Your task to perform on an android device: Open Google Chrome and open the bookmarks view Image 0: 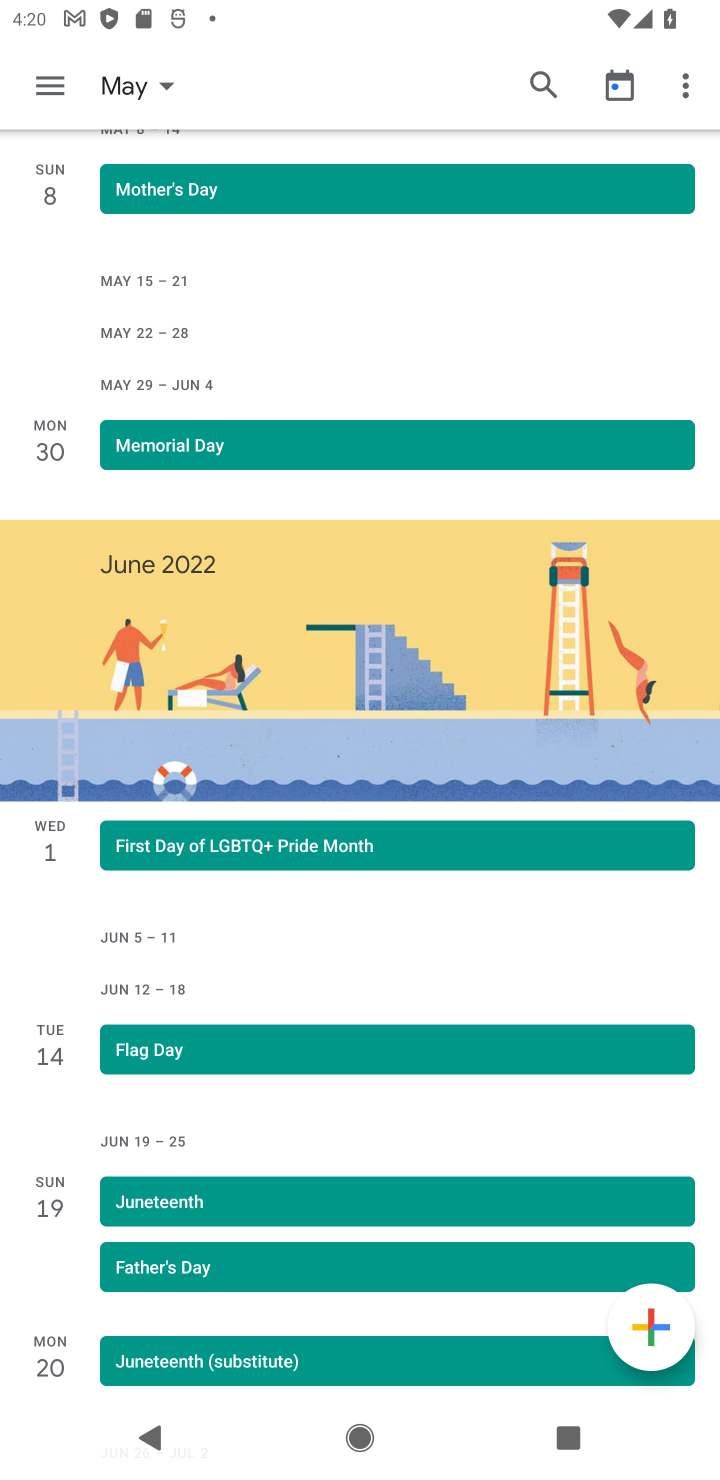
Step 0: press home button
Your task to perform on an android device: Open Google Chrome and open the bookmarks view Image 1: 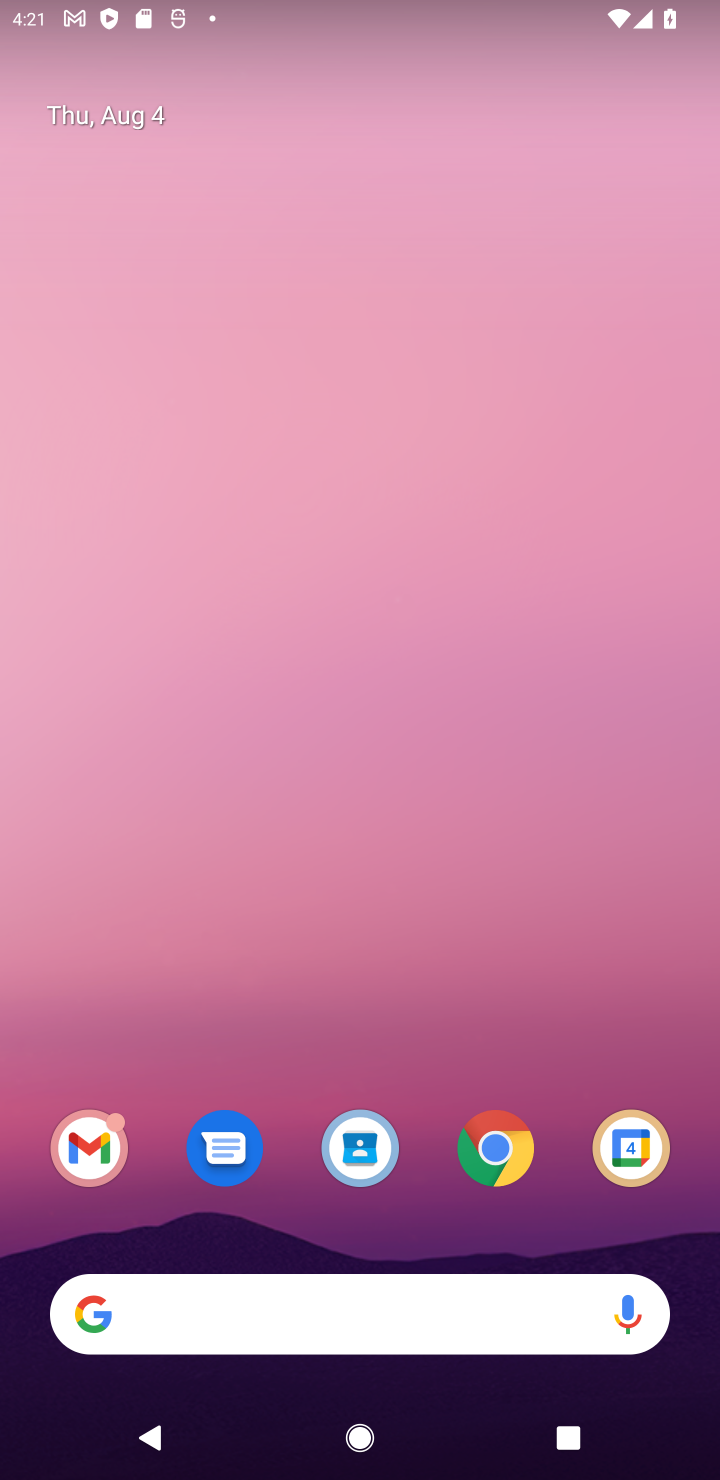
Step 1: click (496, 1155)
Your task to perform on an android device: Open Google Chrome and open the bookmarks view Image 2: 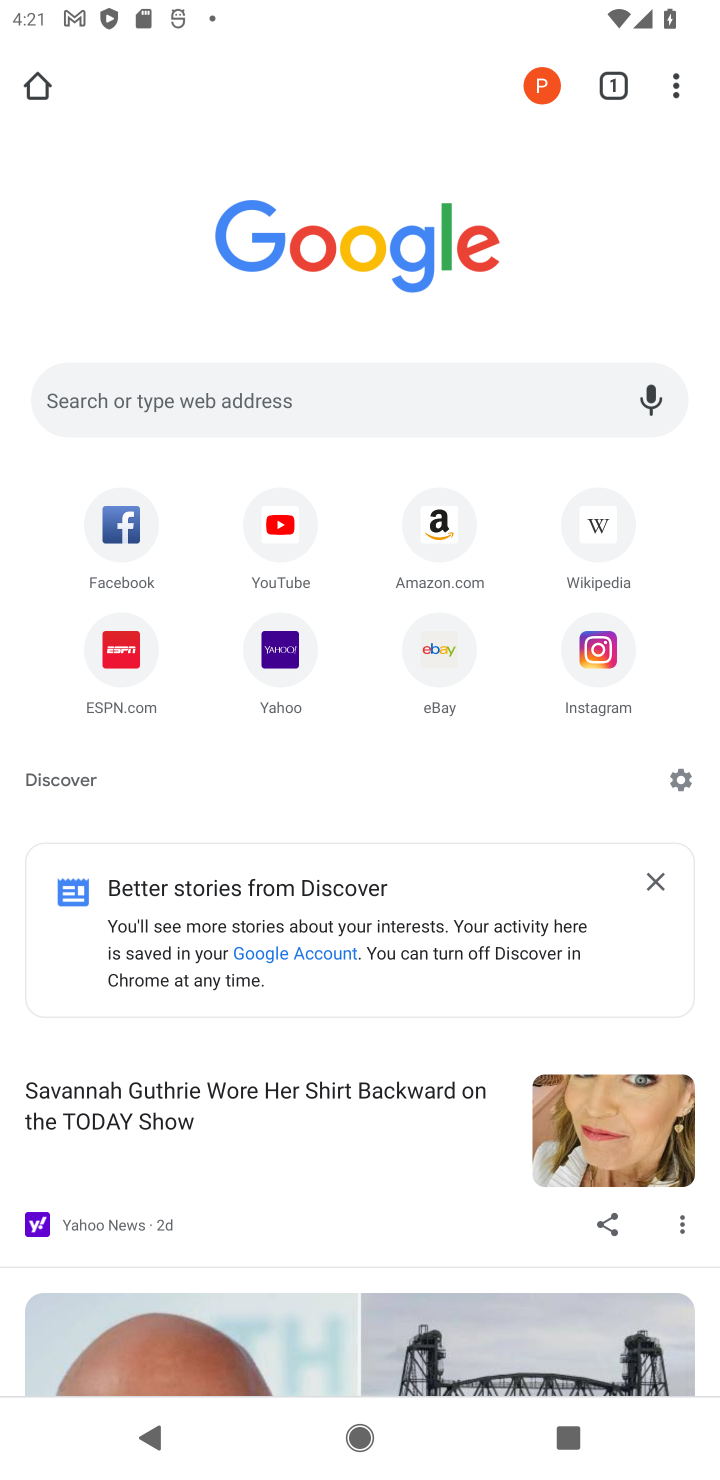
Step 2: click (675, 99)
Your task to perform on an android device: Open Google Chrome and open the bookmarks view Image 3: 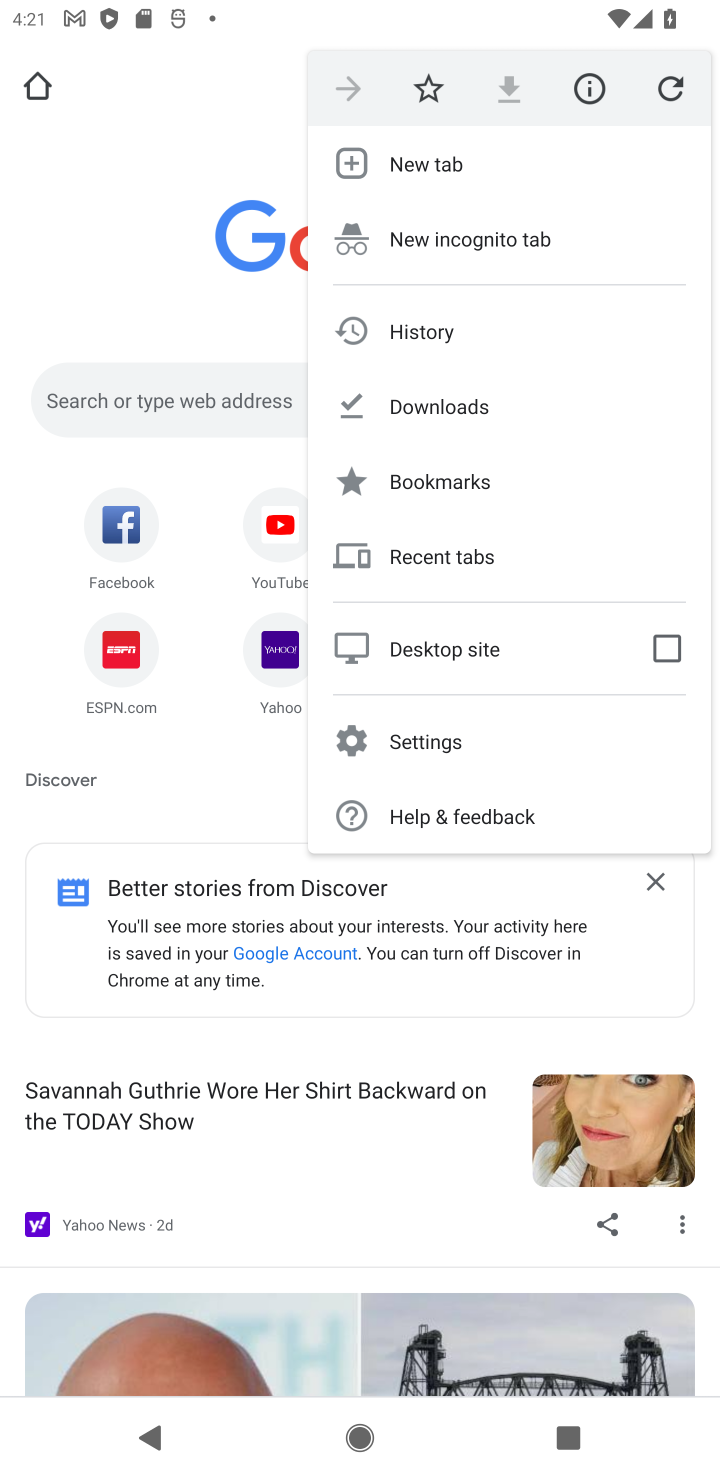
Step 3: click (448, 482)
Your task to perform on an android device: Open Google Chrome and open the bookmarks view Image 4: 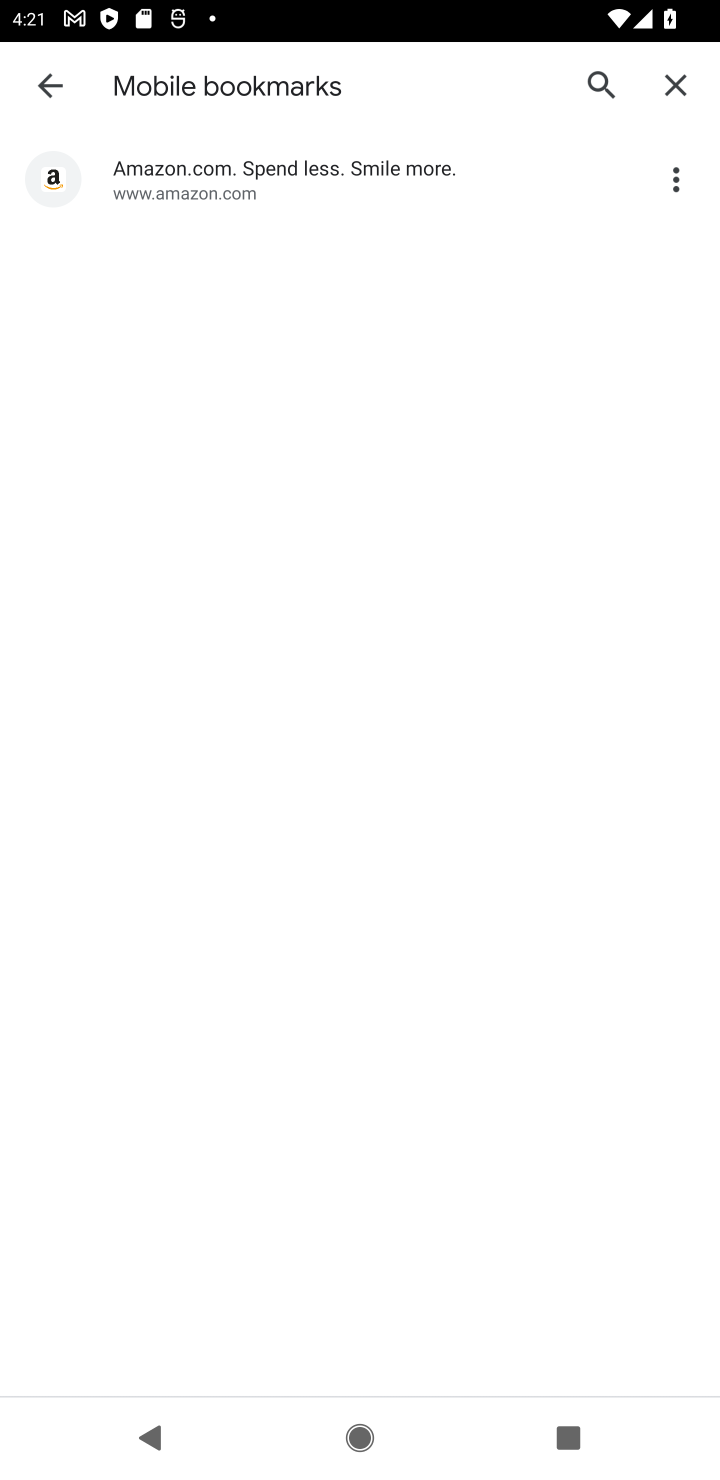
Step 4: task complete